Your task to perform on an android device: turn on bluetooth scan Image 0: 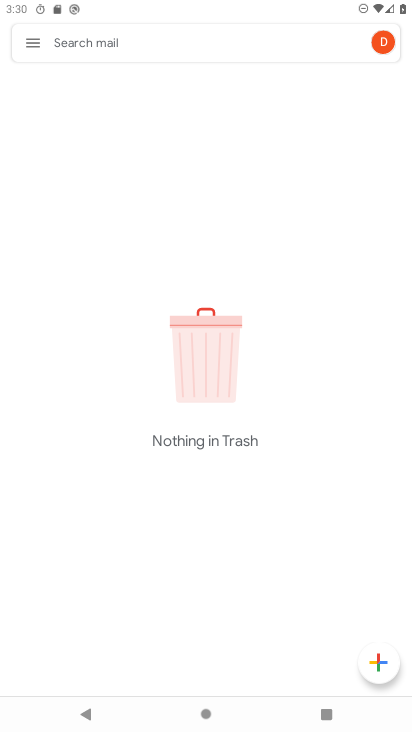
Step 0: press home button
Your task to perform on an android device: turn on bluetooth scan Image 1: 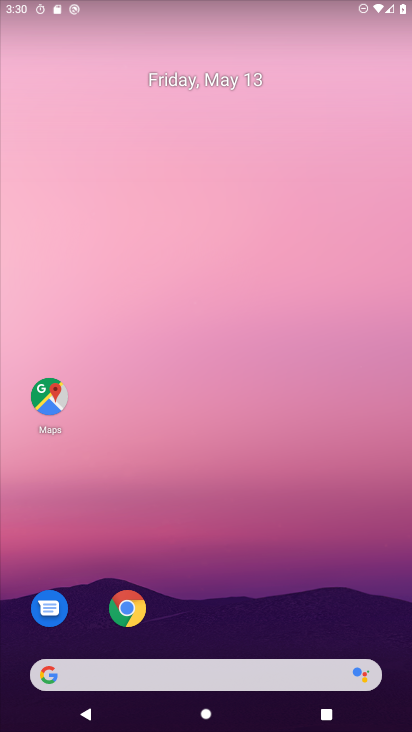
Step 1: drag from (312, 582) to (331, 78)
Your task to perform on an android device: turn on bluetooth scan Image 2: 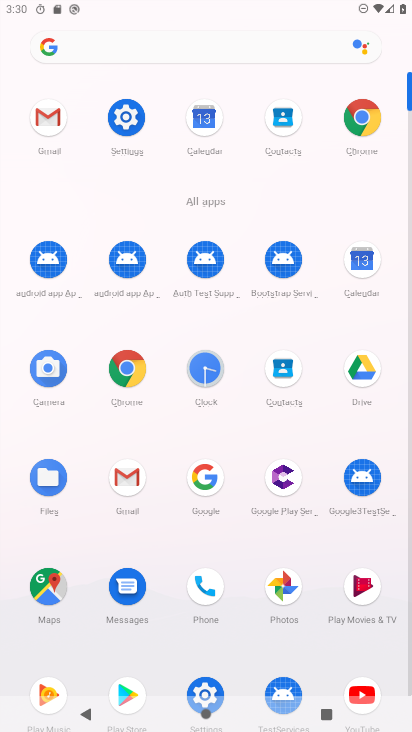
Step 2: click (138, 123)
Your task to perform on an android device: turn on bluetooth scan Image 3: 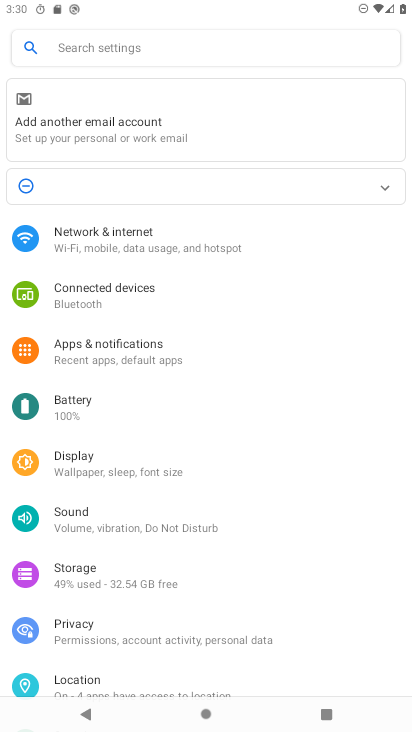
Step 3: drag from (153, 656) to (216, 445)
Your task to perform on an android device: turn on bluetooth scan Image 4: 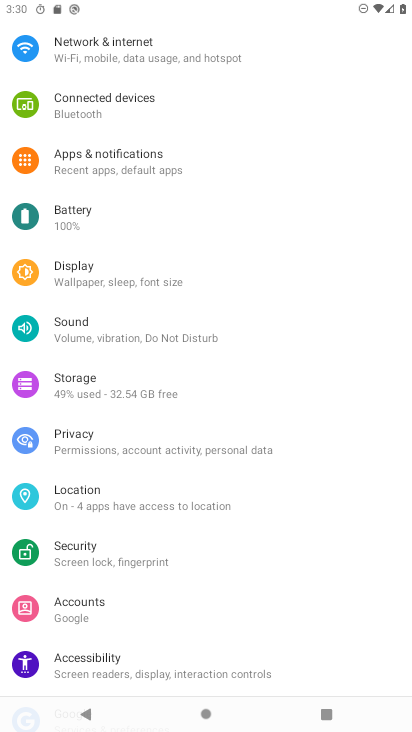
Step 4: click (149, 500)
Your task to perform on an android device: turn on bluetooth scan Image 5: 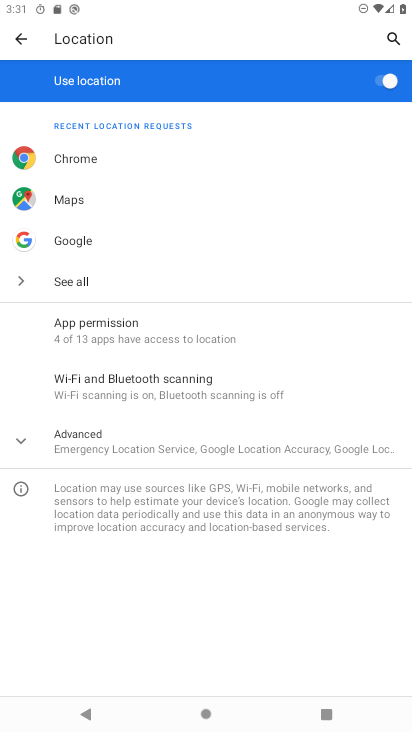
Step 5: click (169, 400)
Your task to perform on an android device: turn on bluetooth scan Image 6: 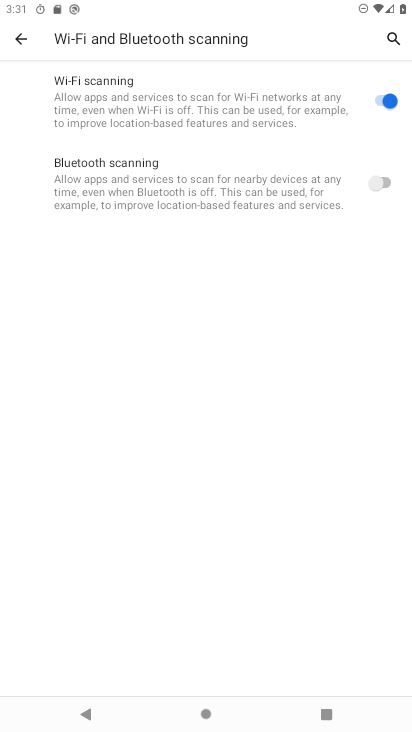
Step 6: click (371, 176)
Your task to perform on an android device: turn on bluetooth scan Image 7: 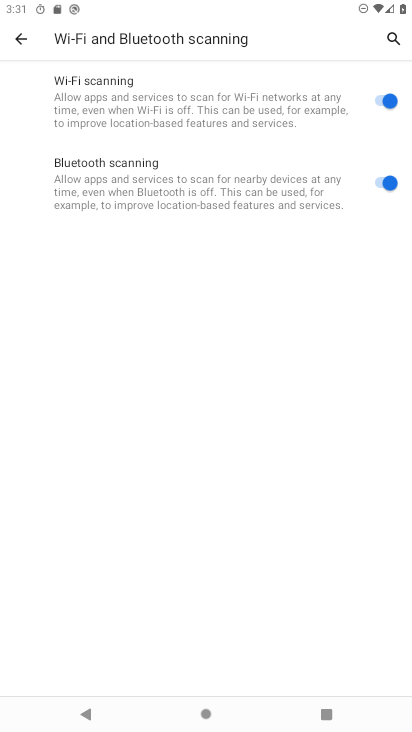
Step 7: task complete